Your task to perform on an android device: turn off notifications in google photos Image 0: 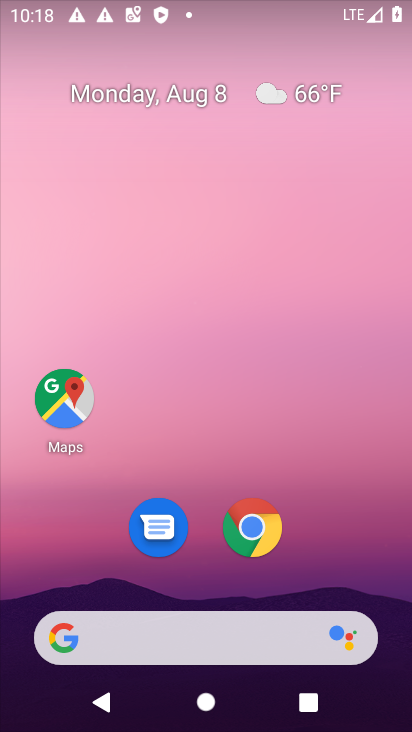
Step 0: drag from (387, 701) to (381, 234)
Your task to perform on an android device: turn off notifications in google photos Image 1: 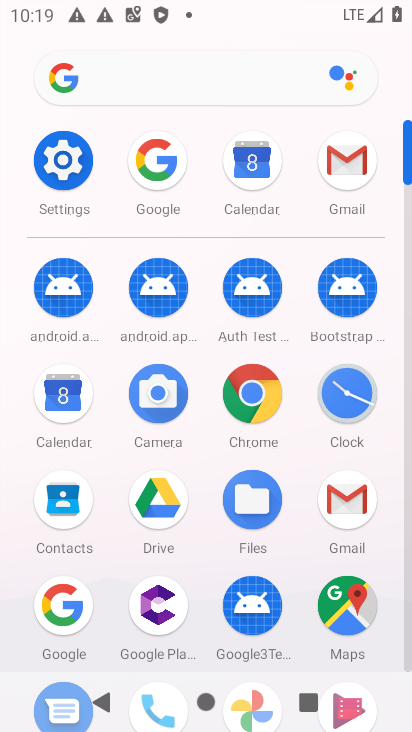
Step 1: drag from (302, 574) to (303, 303)
Your task to perform on an android device: turn off notifications in google photos Image 2: 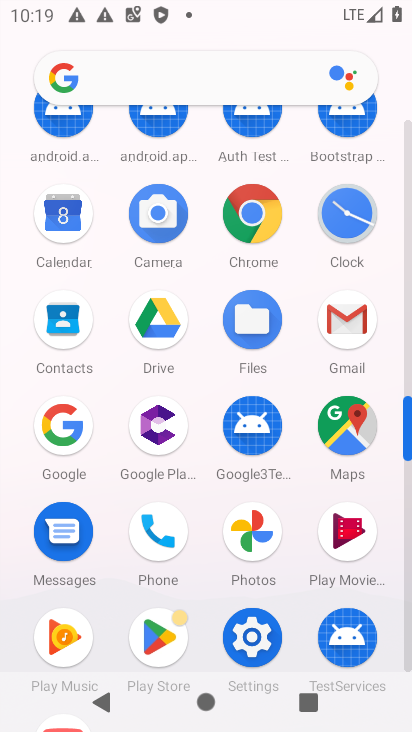
Step 2: click (250, 535)
Your task to perform on an android device: turn off notifications in google photos Image 3: 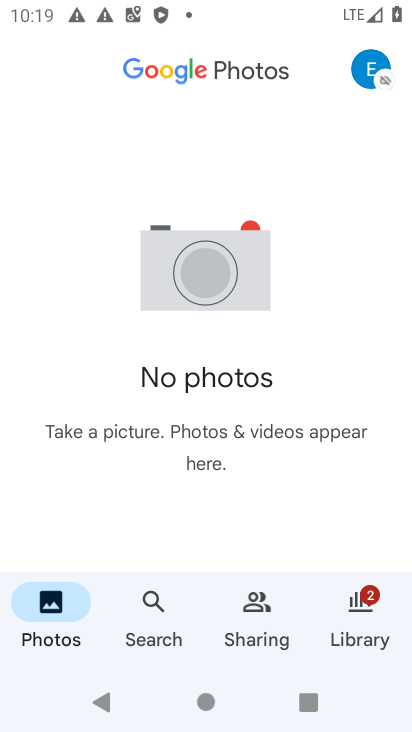
Step 3: task complete